Your task to perform on an android device: Open the calendar and show me this week's events? Image 0: 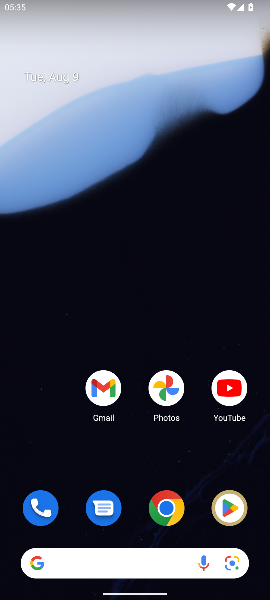
Step 0: press home button
Your task to perform on an android device: Open the calendar and show me this week's events? Image 1: 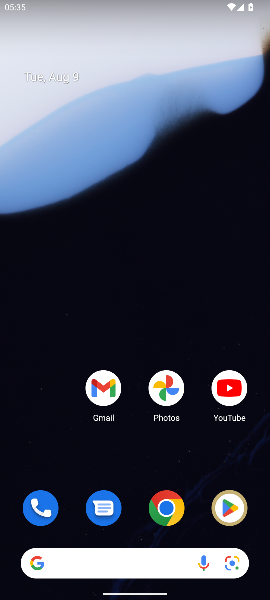
Step 1: drag from (119, 469) to (66, 188)
Your task to perform on an android device: Open the calendar and show me this week's events? Image 2: 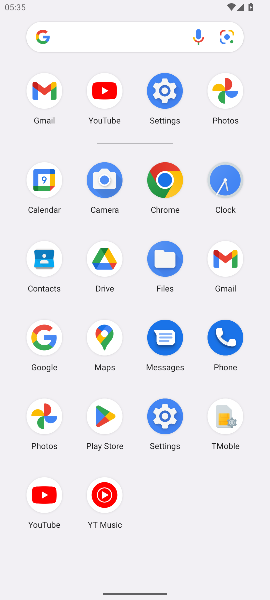
Step 2: click (45, 176)
Your task to perform on an android device: Open the calendar and show me this week's events? Image 3: 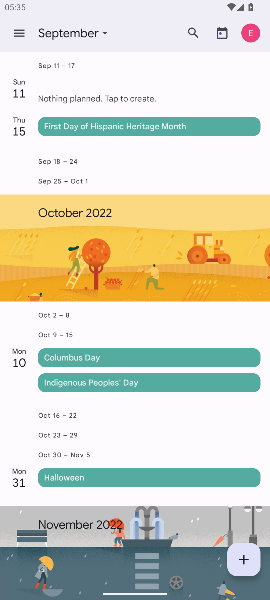
Step 3: click (52, 26)
Your task to perform on an android device: Open the calendar and show me this week's events? Image 4: 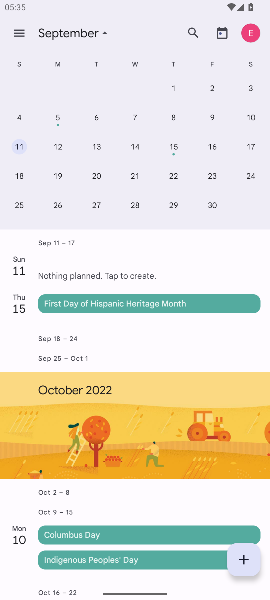
Step 4: drag from (56, 164) to (244, 184)
Your task to perform on an android device: Open the calendar and show me this week's events? Image 5: 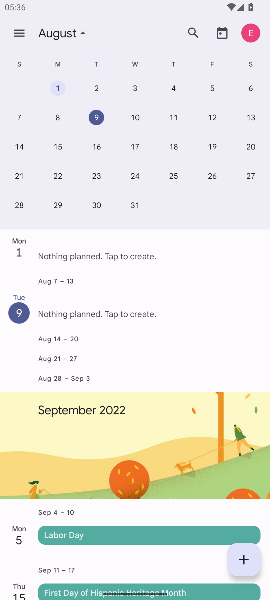
Step 5: click (90, 114)
Your task to perform on an android device: Open the calendar and show me this week's events? Image 6: 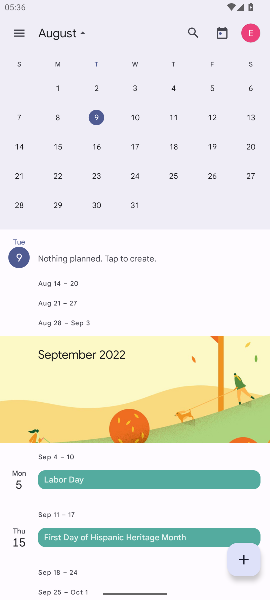
Step 6: click (130, 114)
Your task to perform on an android device: Open the calendar and show me this week's events? Image 7: 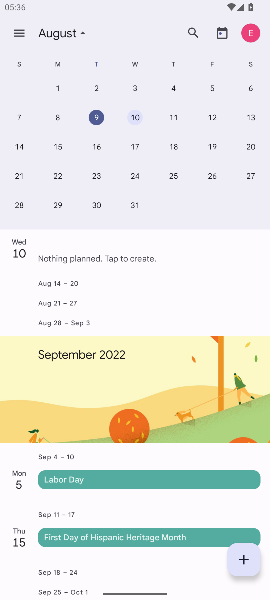
Step 7: click (174, 114)
Your task to perform on an android device: Open the calendar and show me this week's events? Image 8: 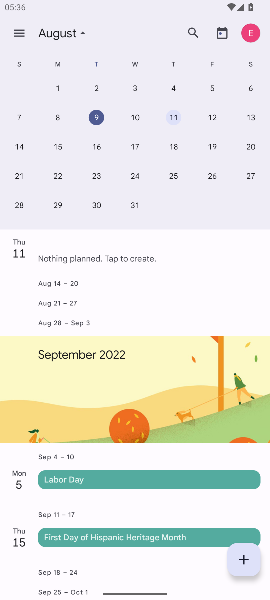
Step 8: click (203, 121)
Your task to perform on an android device: Open the calendar and show me this week's events? Image 9: 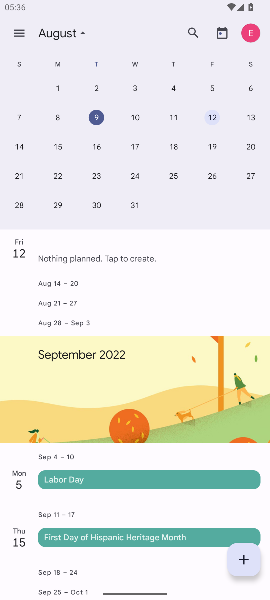
Step 9: click (249, 121)
Your task to perform on an android device: Open the calendar and show me this week's events? Image 10: 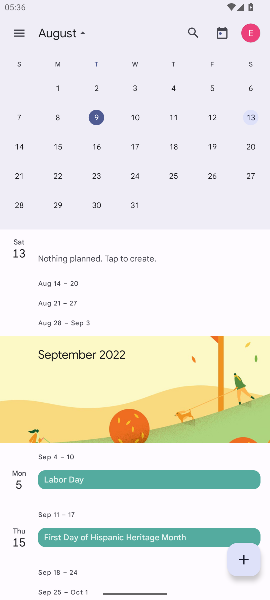
Step 10: task complete